Your task to perform on an android device: turn off airplane mode Image 0: 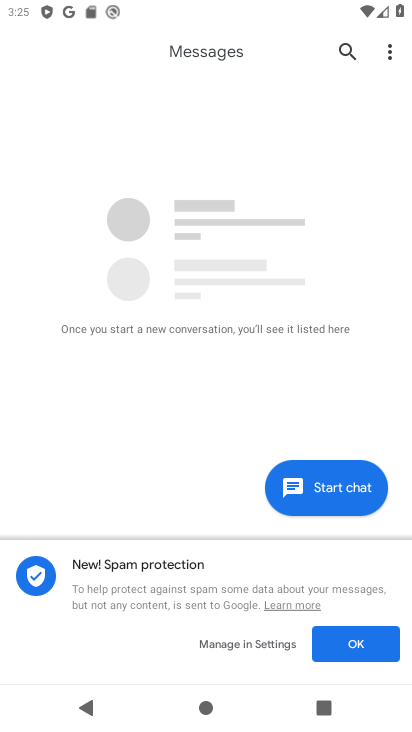
Step 0: drag from (233, 607) to (217, 432)
Your task to perform on an android device: turn off airplane mode Image 1: 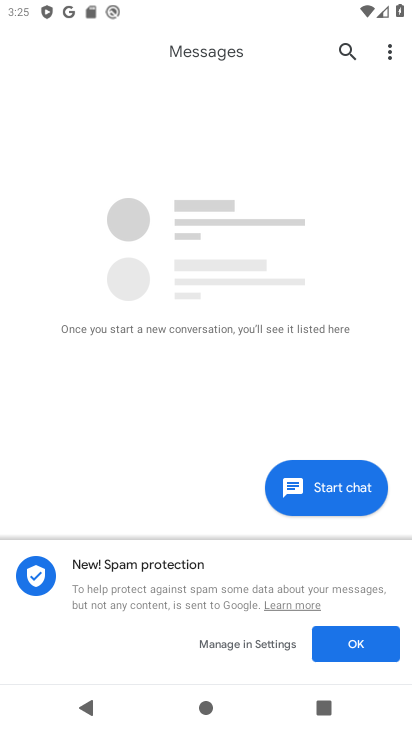
Step 1: task complete